Your task to perform on an android device: turn off smart reply in the gmail app Image 0: 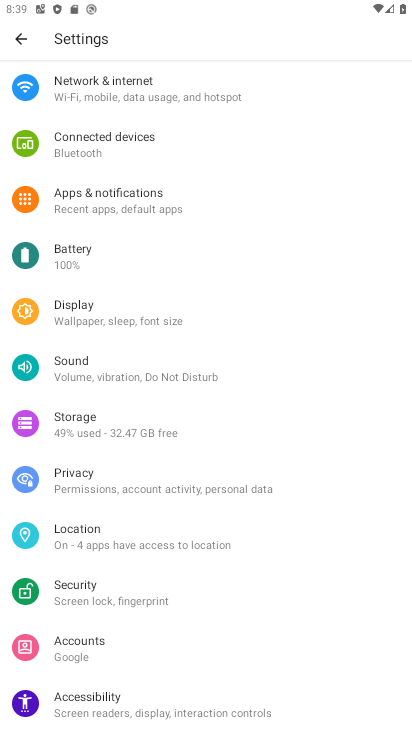
Step 0: press home button
Your task to perform on an android device: turn off smart reply in the gmail app Image 1: 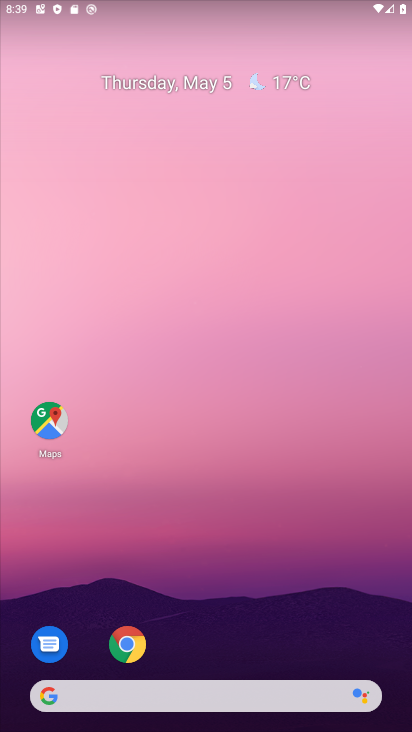
Step 1: drag from (231, 636) to (195, 258)
Your task to perform on an android device: turn off smart reply in the gmail app Image 2: 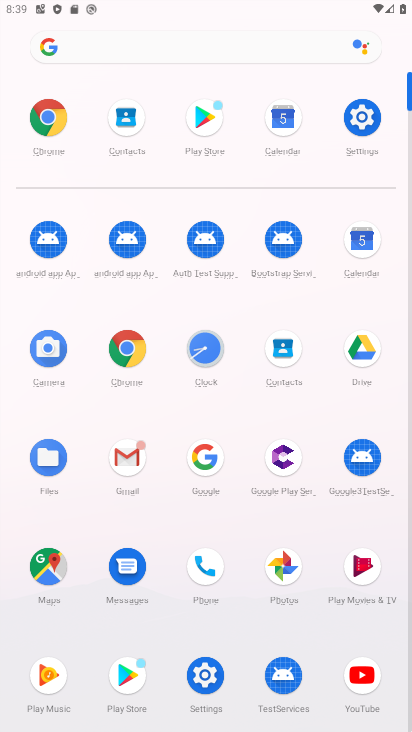
Step 2: click (127, 470)
Your task to perform on an android device: turn off smart reply in the gmail app Image 3: 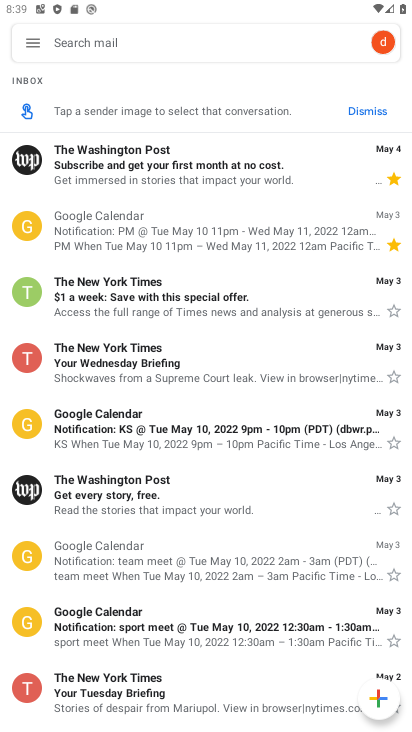
Step 3: click (37, 41)
Your task to perform on an android device: turn off smart reply in the gmail app Image 4: 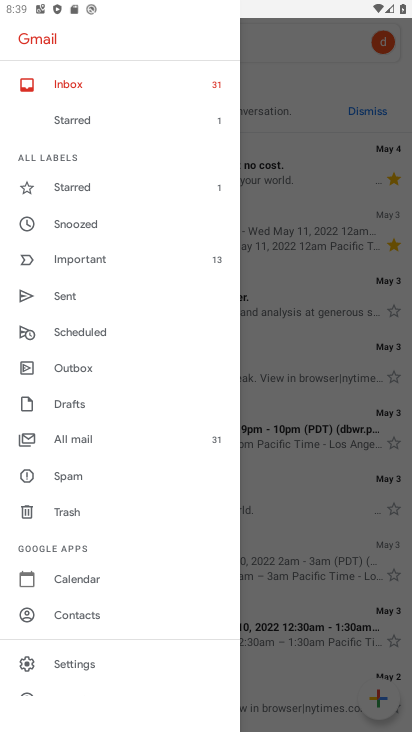
Step 4: click (156, 652)
Your task to perform on an android device: turn off smart reply in the gmail app Image 5: 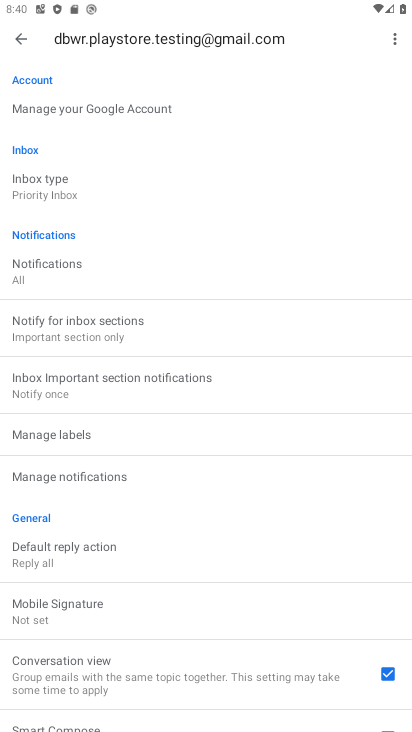
Step 5: drag from (209, 645) to (190, 145)
Your task to perform on an android device: turn off smart reply in the gmail app Image 6: 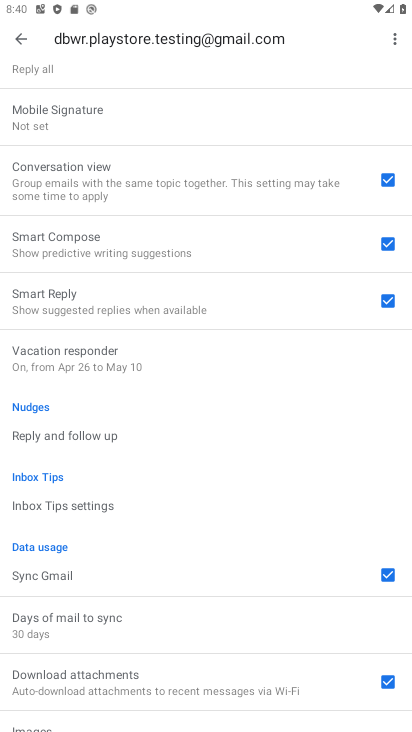
Step 6: drag from (212, 565) to (220, 388)
Your task to perform on an android device: turn off smart reply in the gmail app Image 7: 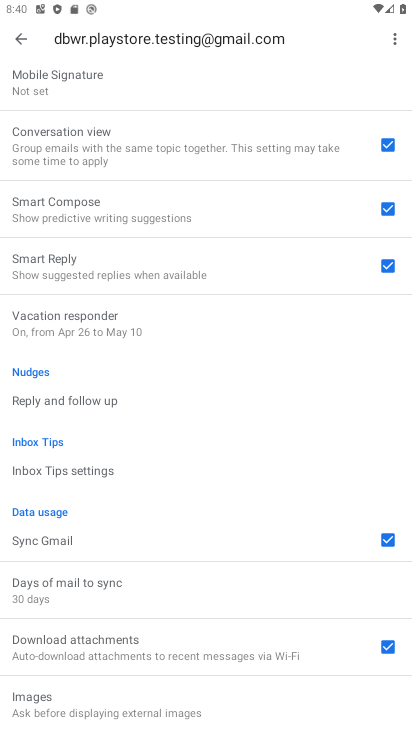
Step 7: click (394, 269)
Your task to perform on an android device: turn off smart reply in the gmail app Image 8: 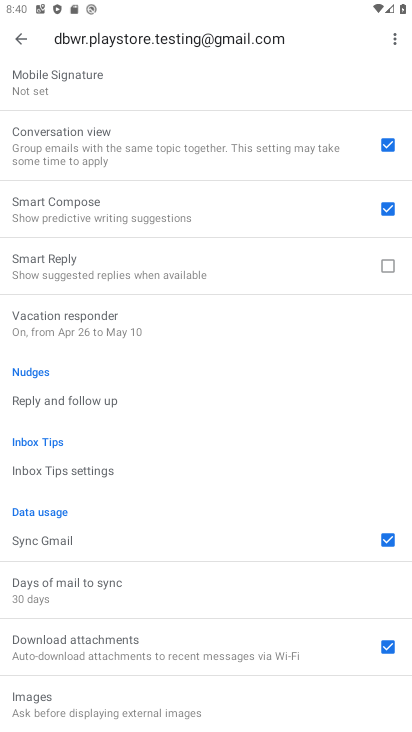
Step 8: task complete